Your task to perform on an android device: turn off location history Image 0: 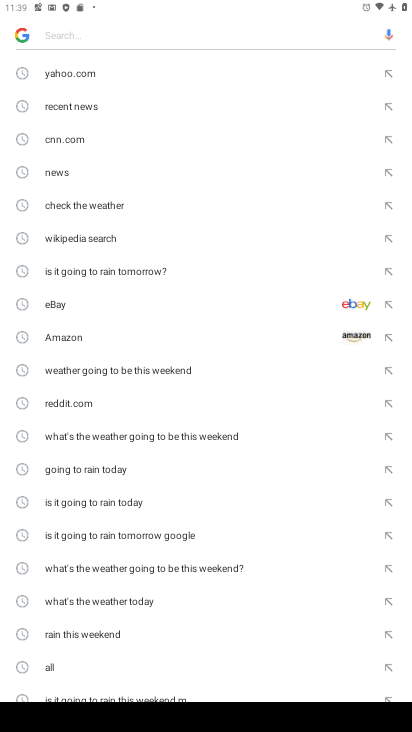
Step 0: press home button
Your task to perform on an android device: turn off location history Image 1: 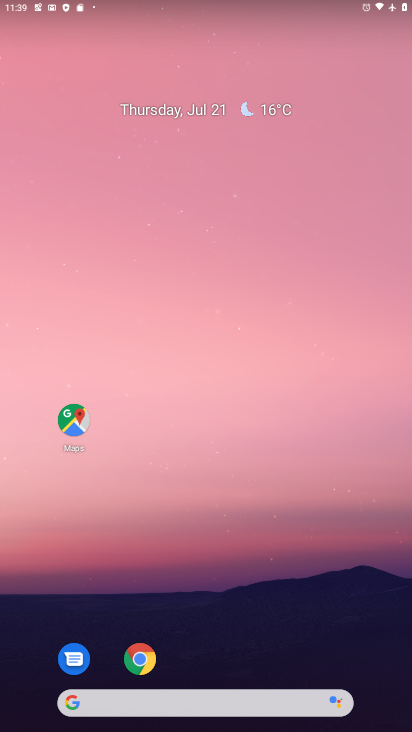
Step 1: drag from (87, 641) to (131, 130)
Your task to perform on an android device: turn off location history Image 2: 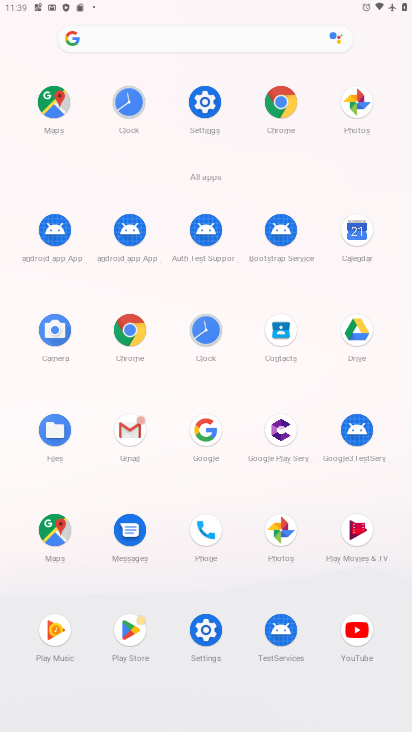
Step 2: click (206, 101)
Your task to perform on an android device: turn off location history Image 3: 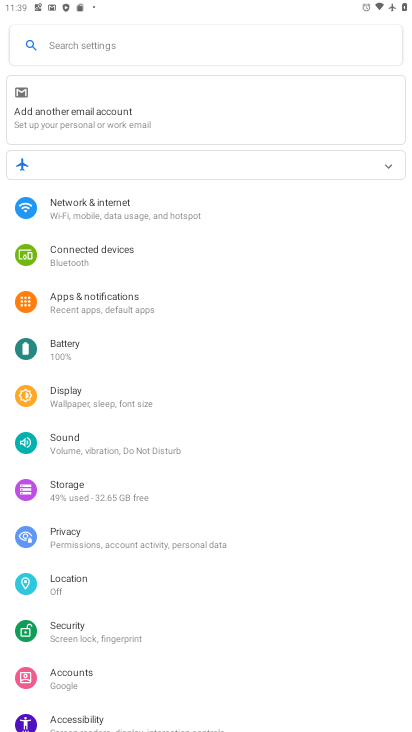
Step 3: click (71, 589)
Your task to perform on an android device: turn off location history Image 4: 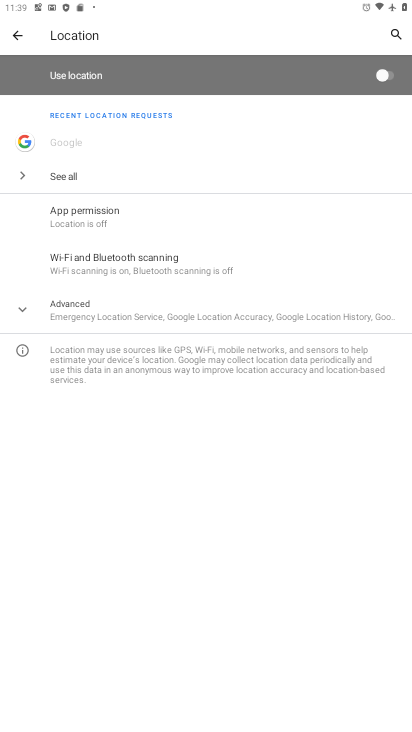
Step 4: click (93, 317)
Your task to perform on an android device: turn off location history Image 5: 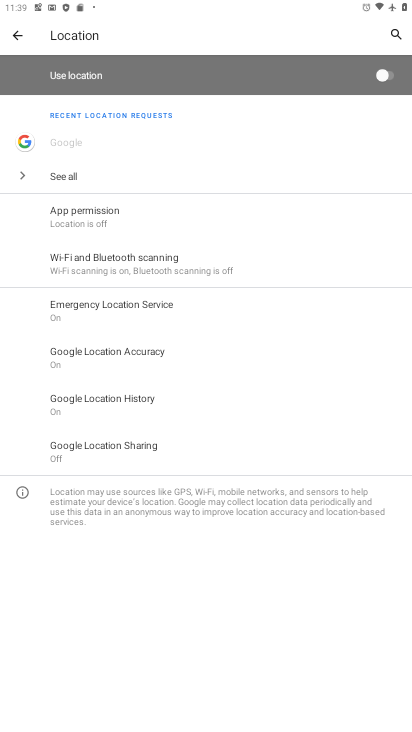
Step 5: click (116, 402)
Your task to perform on an android device: turn off location history Image 6: 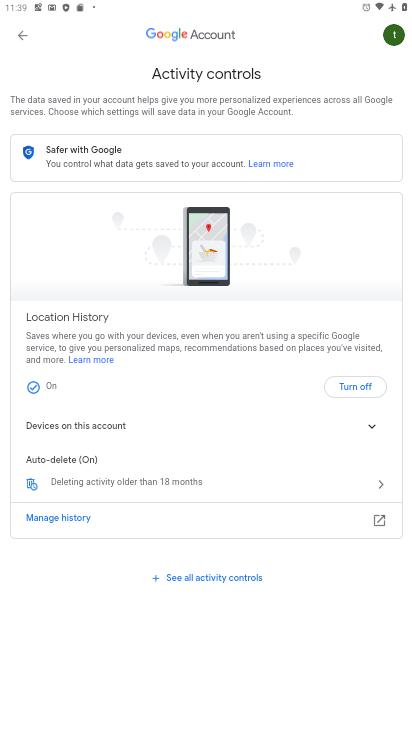
Step 6: click (357, 385)
Your task to perform on an android device: turn off location history Image 7: 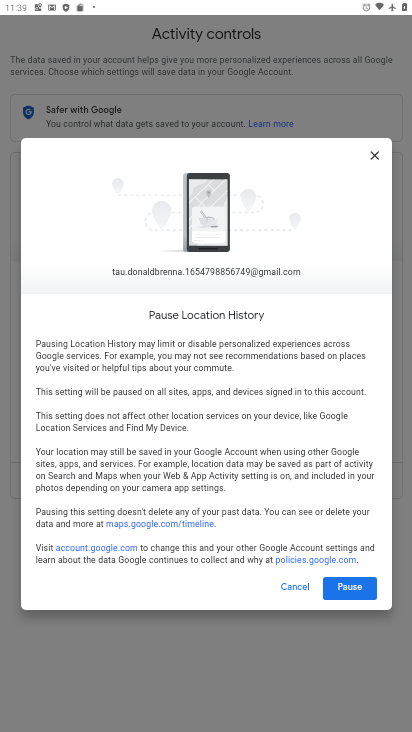
Step 7: click (348, 587)
Your task to perform on an android device: turn off location history Image 8: 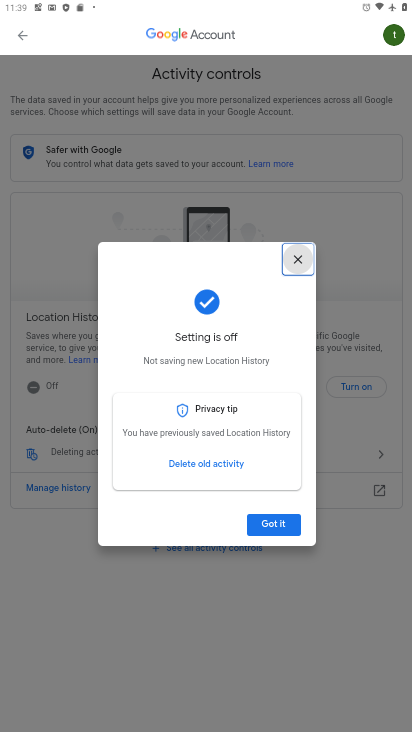
Step 8: task complete